Your task to perform on an android device: Go to eBay Image 0: 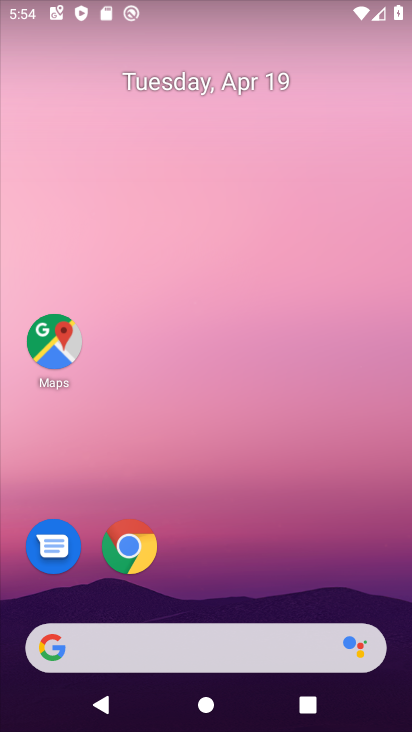
Step 0: drag from (244, 566) to (318, 2)
Your task to perform on an android device: Go to eBay Image 1: 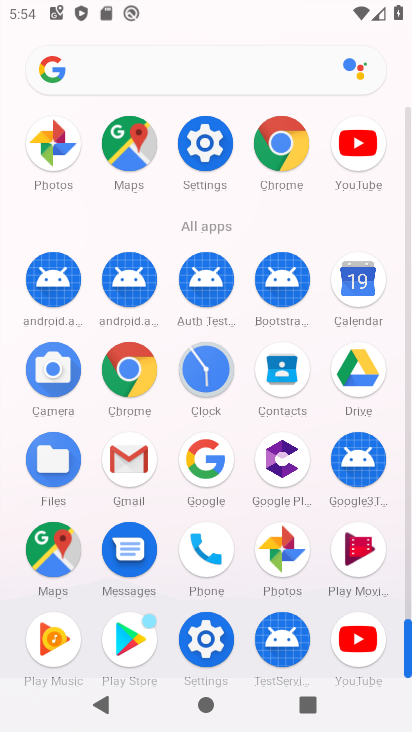
Step 1: click (140, 374)
Your task to perform on an android device: Go to eBay Image 2: 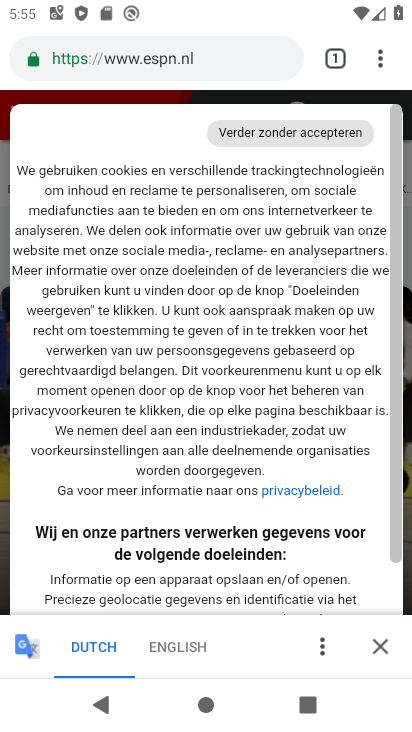
Step 2: click (192, 54)
Your task to perform on an android device: Go to eBay Image 3: 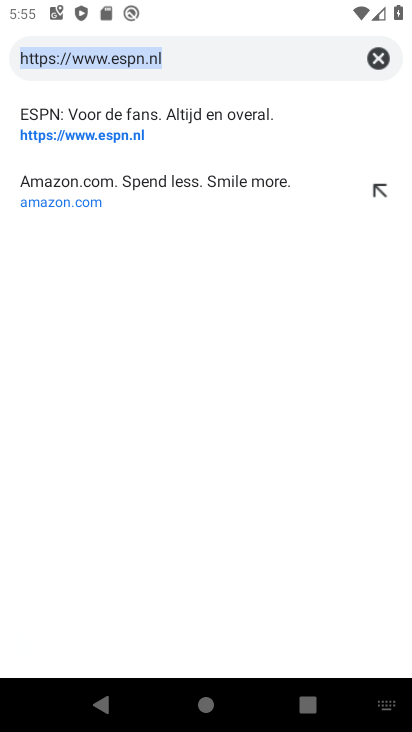
Step 3: type "ebay"
Your task to perform on an android device: Go to eBay Image 4: 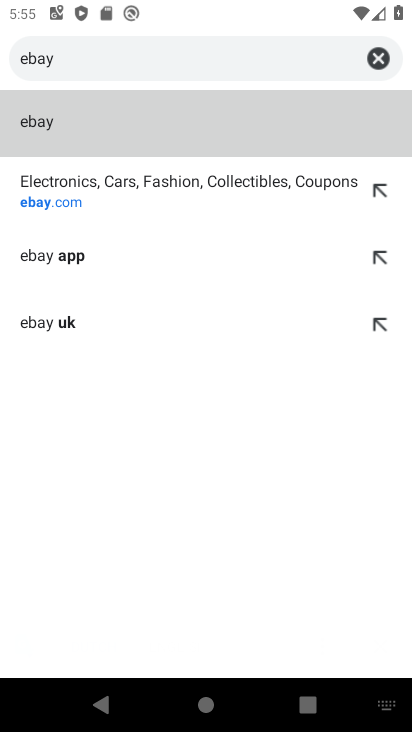
Step 4: click (45, 130)
Your task to perform on an android device: Go to eBay Image 5: 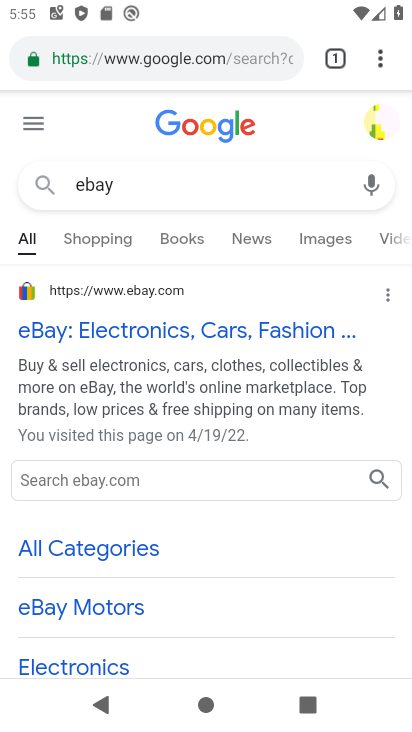
Step 5: click (79, 328)
Your task to perform on an android device: Go to eBay Image 6: 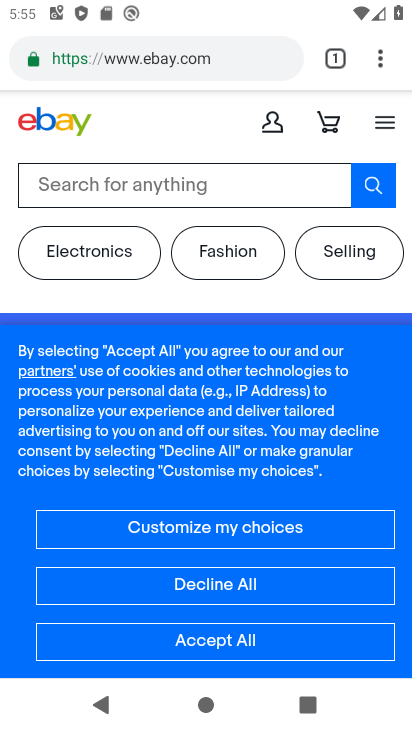
Step 6: task complete